Your task to perform on an android device: add a contact in the contacts app Image 0: 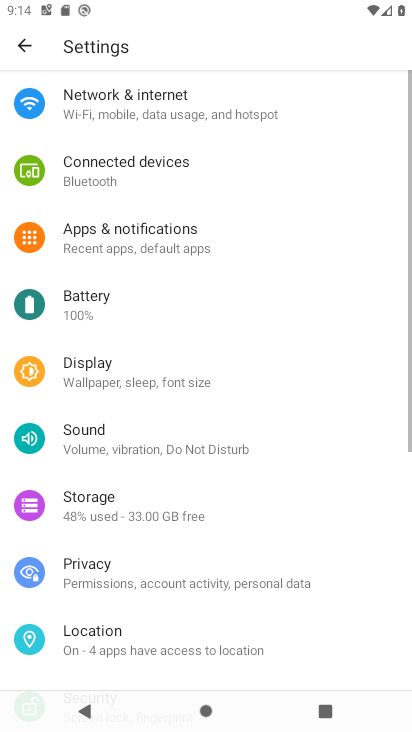
Step 0: press home button
Your task to perform on an android device: add a contact in the contacts app Image 1: 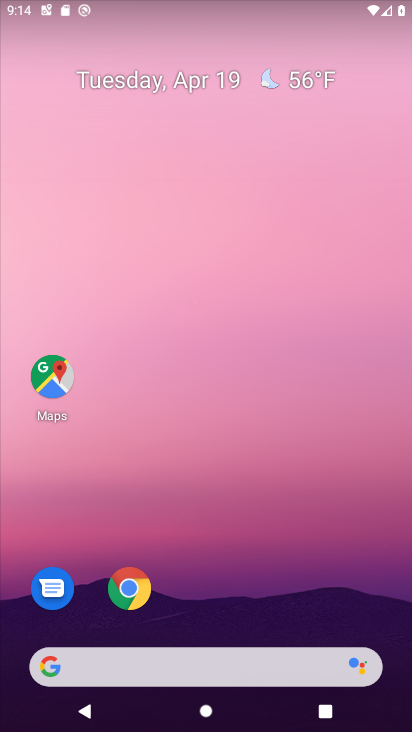
Step 1: drag from (210, 609) to (202, 26)
Your task to perform on an android device: add a contact in the contacts app Image 2: 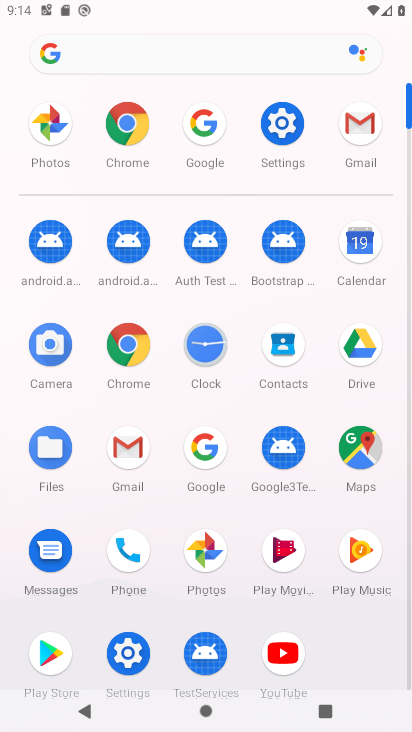
Step 2: click (280, 337)
Your task to perform on an android device: add a contact in the contacts app Image 3: 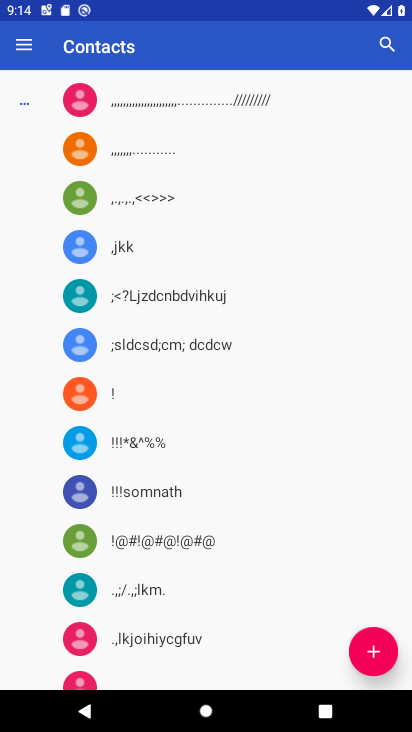
Step 3: click (374, 647)
Your task to perform on an android device: add a contact in the contacts app Image 4: 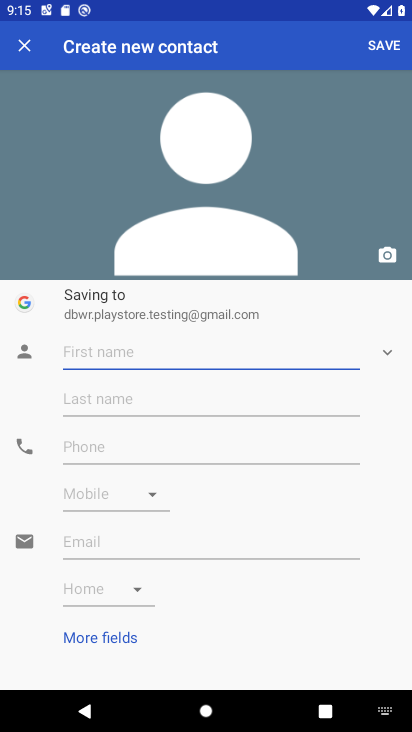
Step 4: type "hfhfdt"
Your task to perform on an android device: add a contact in the contacts app Image 5: 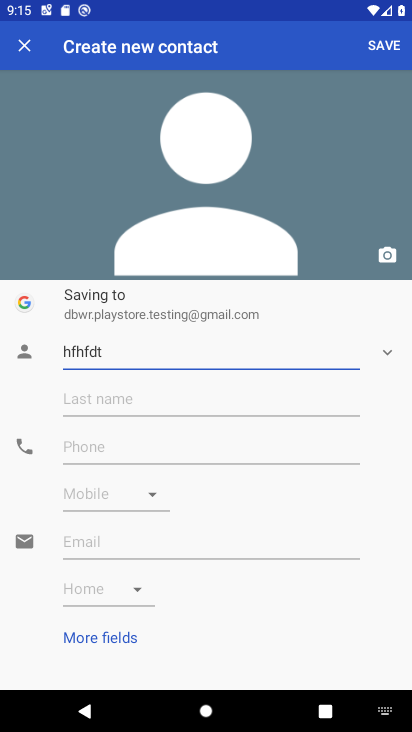
Step 5: click (387, 42)
Your task to perform on an android device: add a contact in the contacts app Image 6: 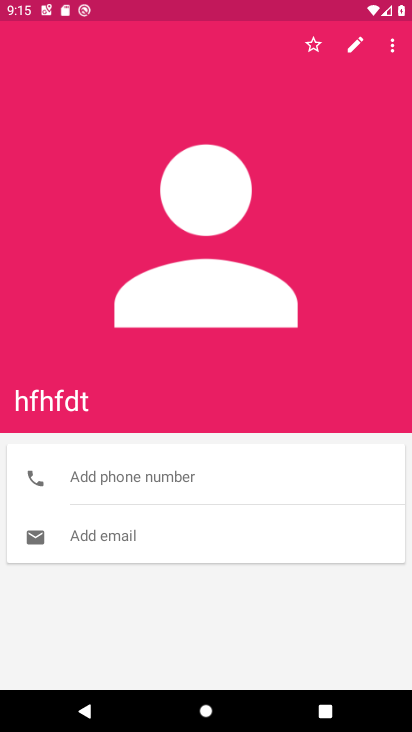
Step 6: task complete